Your task to perform on an android device: Go to internet settings Image 0: 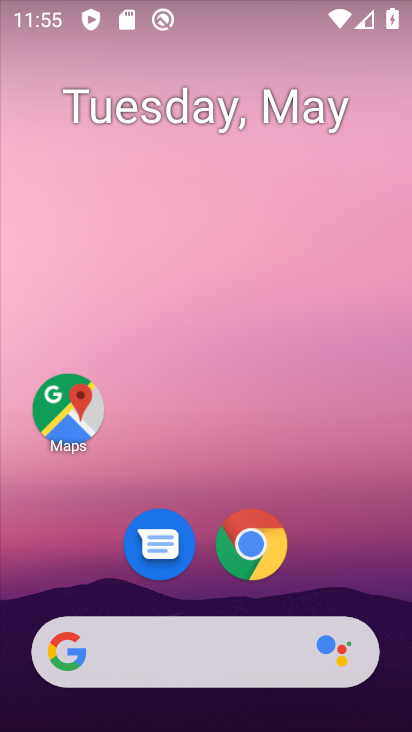
Step 0: drag from (215, 611) to (293, 116)
Your task to perform on an android device: Go to internet settings Image 1: 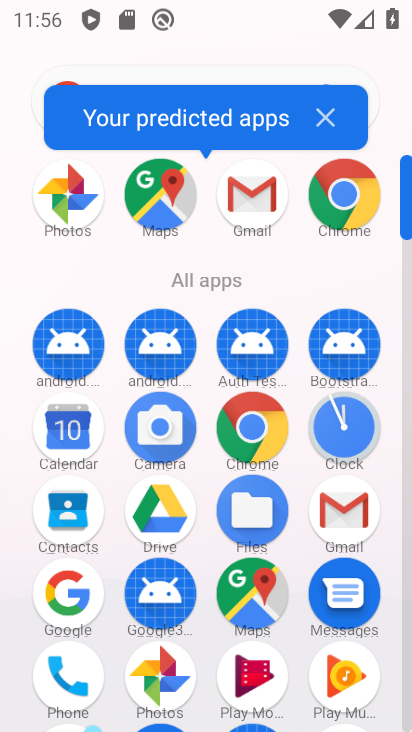
Step 1: drag from (186, 615) to (237, 376)
Your task to perform on an android device: Go to internet settings Image 2: 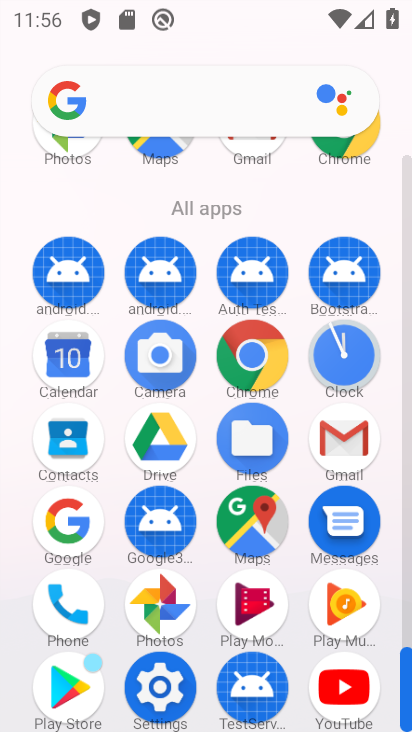
Step 2: click (164, 696)
Your task to perform on an android device: Go to internet settings Image 3: 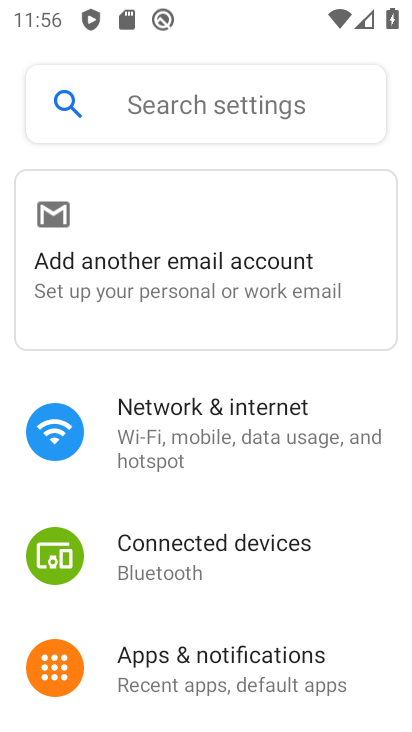
Step 3: click (214, 430)
Your task to perform on an android device: Go to internet settings Image 4: 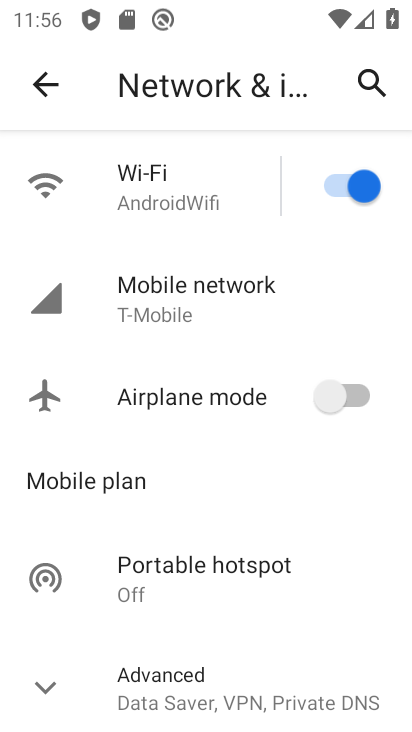
Step 4: click (223, 322)
Your task to perform on an android device: Go to internet settings Image 5: 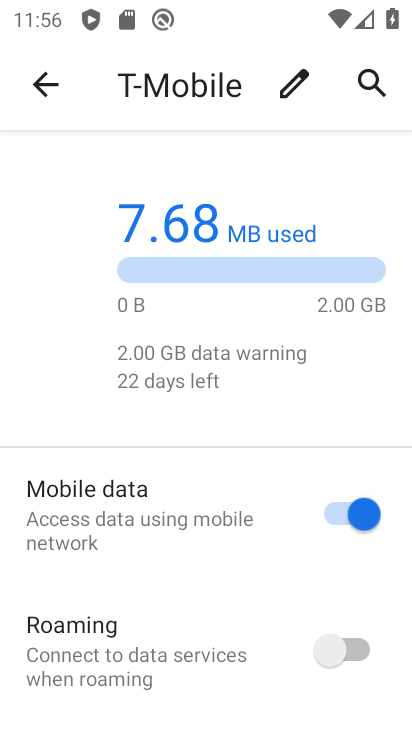
Step 5: task complete